Your task to perform on an android device: Do I have any events this weekend? Image 0: 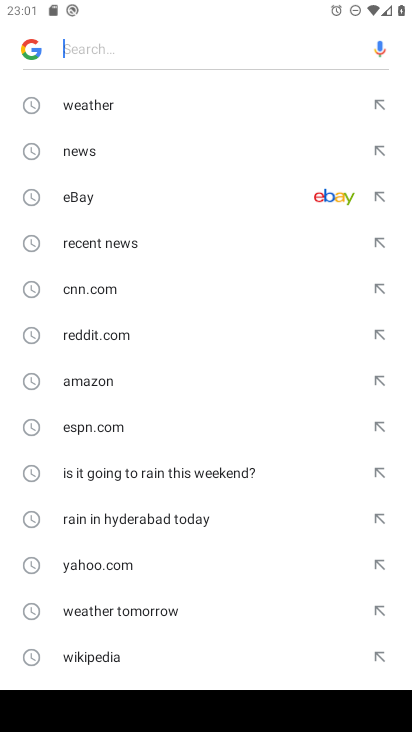
Step 0: press home button
Your task to perform on an android device: Do I have any events this weekend? Image 1: 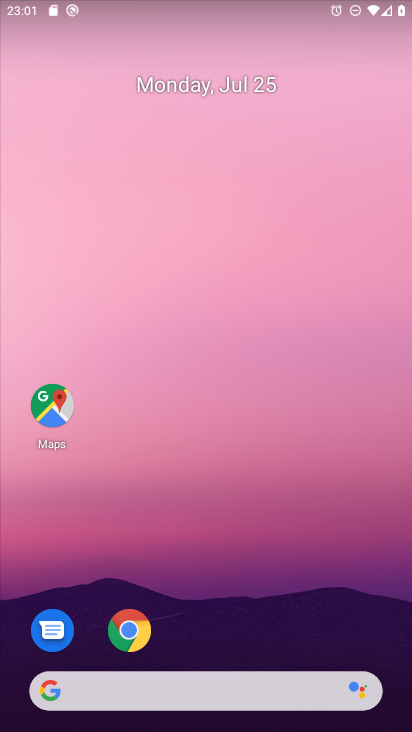
Step 1: drag from (345, 621) to (58, 9)
Your task to perform on an android device: Do I have any events this weekend? Image 2: 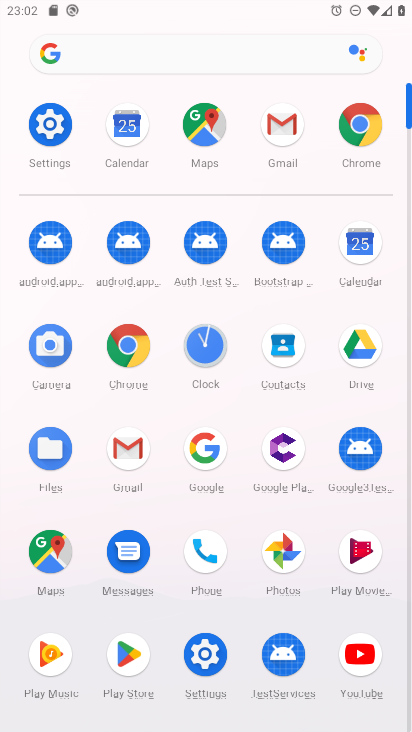
Step 2: click (373, 251)
Your task to perform on an android device: Do I have any events this weekend? Image 3: 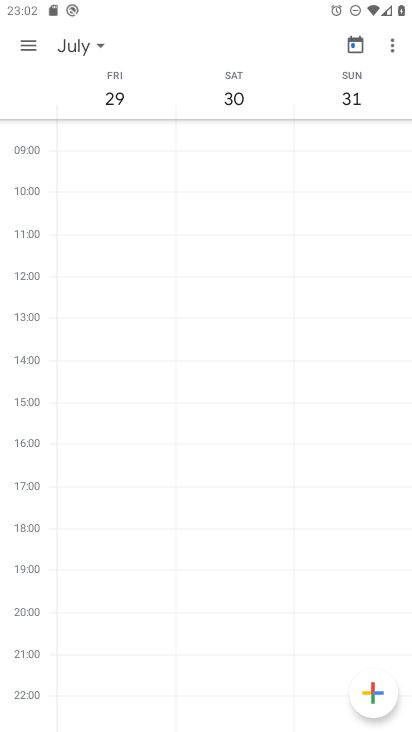
Step 3: task complete